Your task to perform on an android device: toggle javascript in the chrome app Image 0: 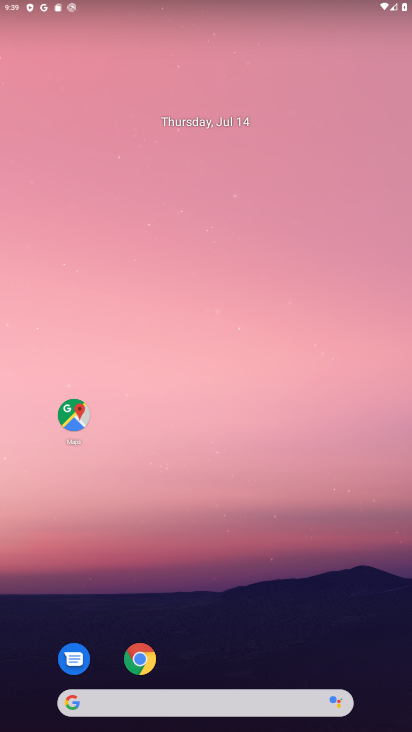
Step 0: drag from (312, 616) to (180, 140)
Your task to perform on an android device: toggle javascript in the chrome app Image 1: 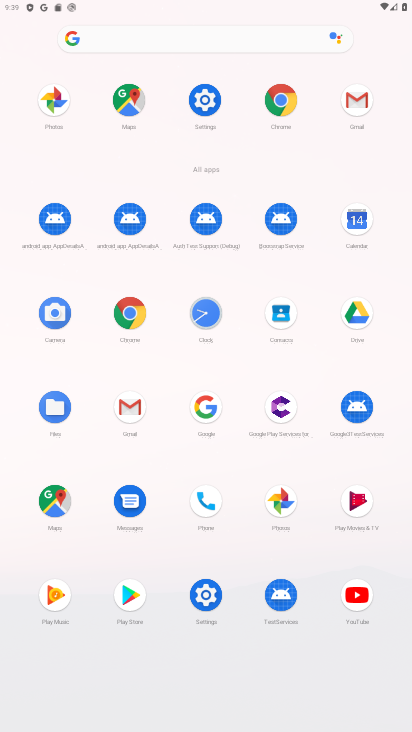
Step 1: click (128, 313)
Your task to perform on an android device: toggle javascript in the chrome app Image 2: 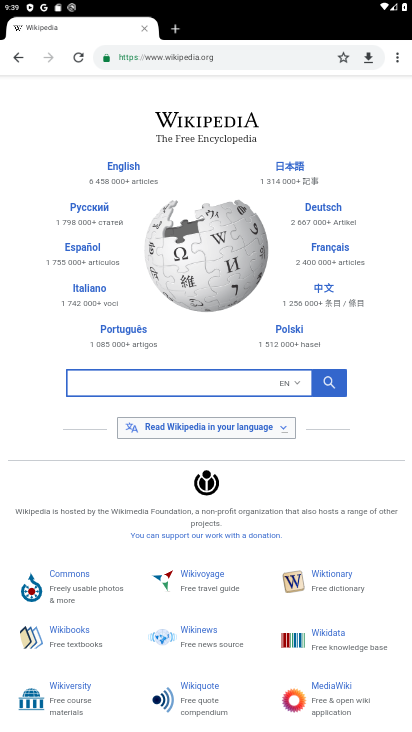
Step 2: drag from (403, 56) to (298, 383)
Your task to perform on an android device: toggle javascript in the chrome app Image 3: 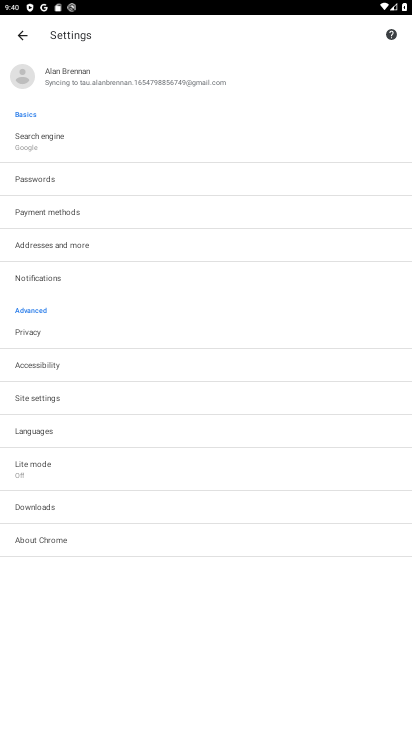
Step 3: click (31, 398)
Your task to perform on an android device: toggle javascript in the chrome app Image 4: 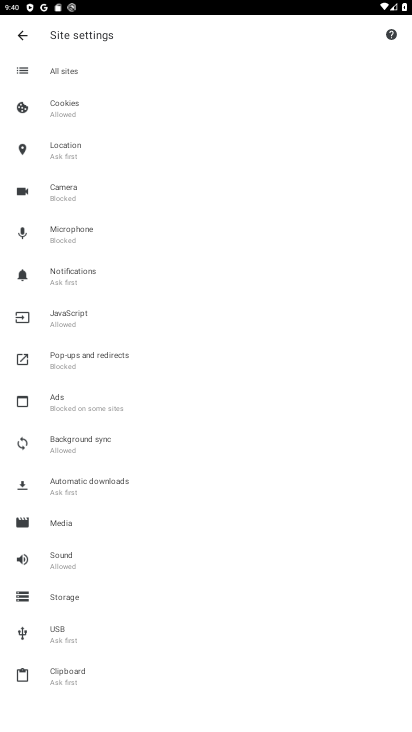
Step 4: click (84, 315)
Your task to perform on an android device: toggle javascript in the chrome app Image 5: 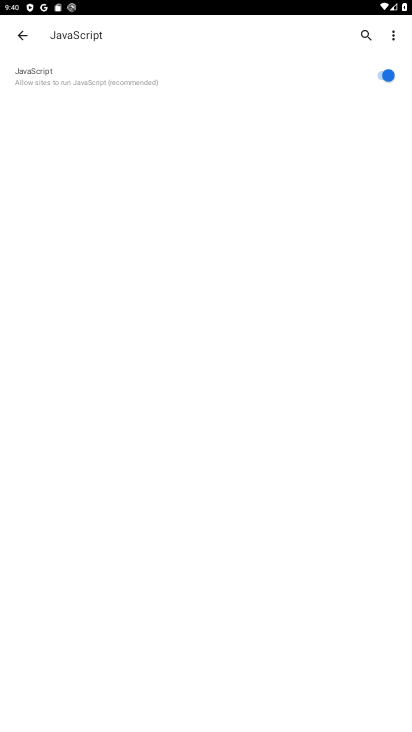
Step 5: click (387, 78)
Your task to perform on an android device: toggle javascript in the chrome app Image 6: 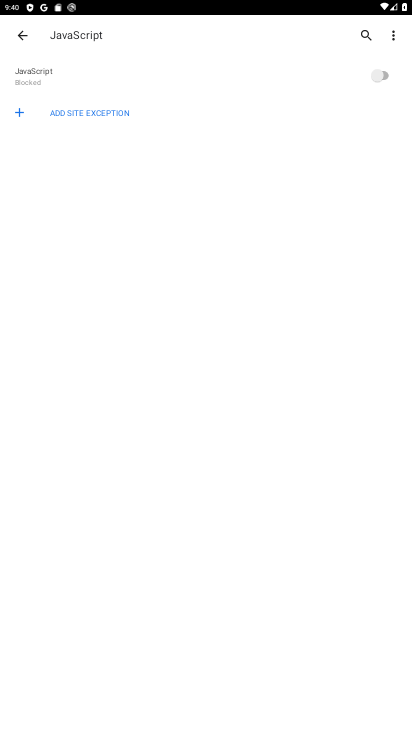
Step 6: task complete